Your task to perform on an android device: allow notifications from all sites in the chrome app Image 0: 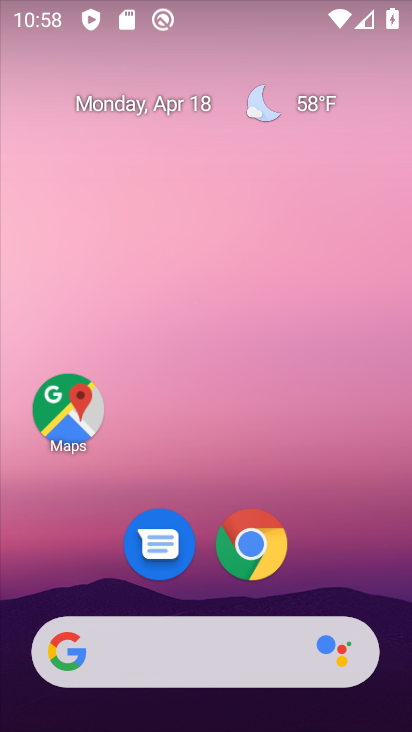
Step 0: click (253, 539)
Your task to perform on an android device: allow notifications from all sites in the chrome app Image 1: 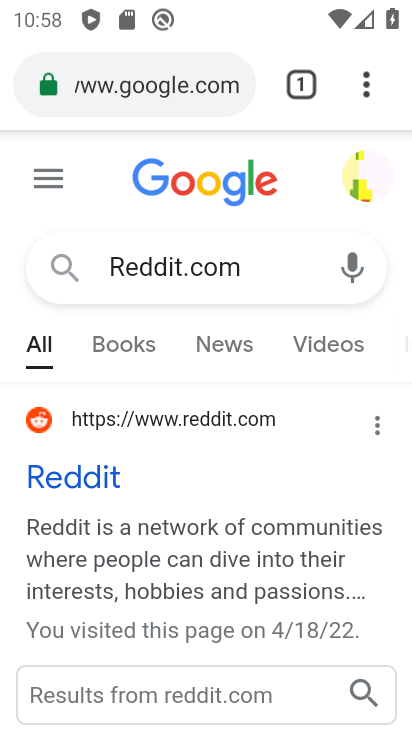
Step 1: click (373, 81)
Your task to perform on an android device: allow notifications from all sites in the chrome app Image 2: 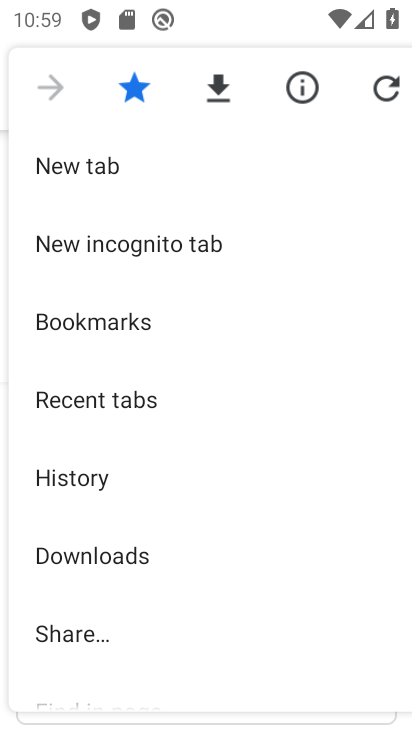
Step 2: drag from (141, 513) to (179, 401)
Your task to perform on an android device: allow notifications from all sites in the chrome app Image 3: 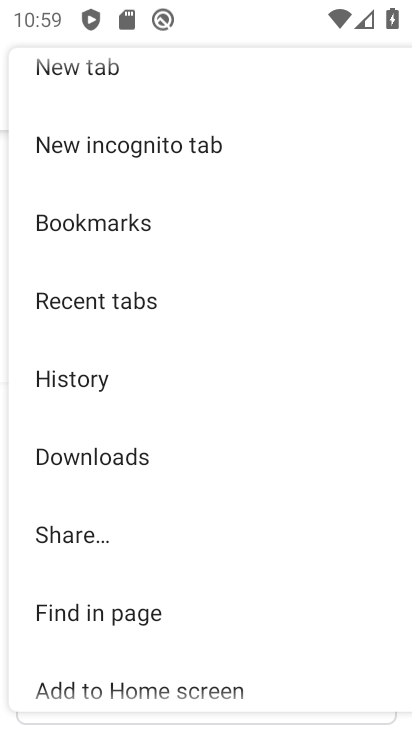
Step 3: drag from (155, 519) to (196, 359)
Your task to perform on an android device: allow notifications from all sites in the chrome app Image 4: 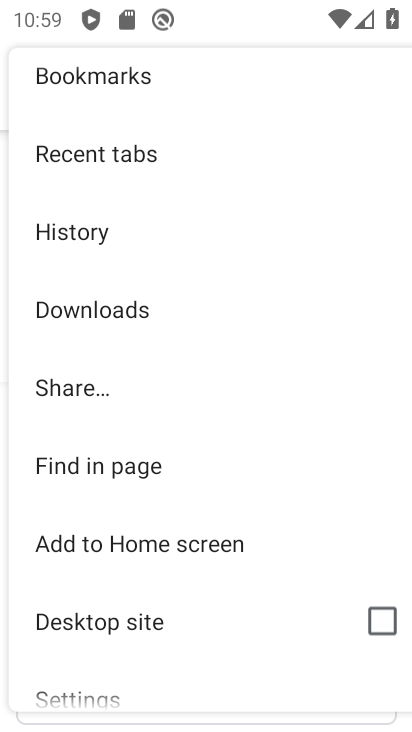
Step 4: drag from (175, 495) to (241, 339)
Your task to perform on an android device: allow notifications from all sites in the chrome app Image 5: 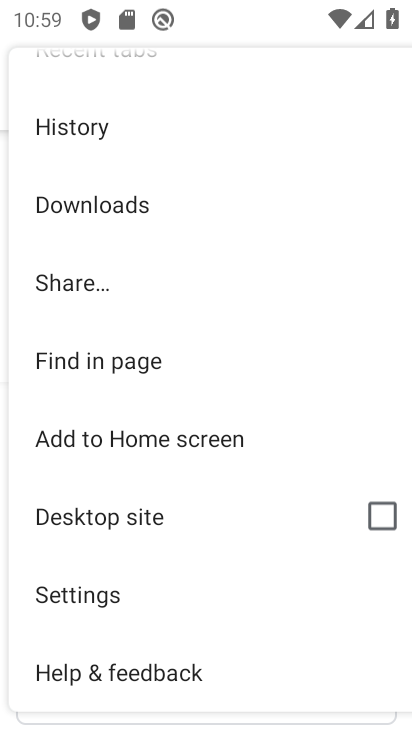
Step 5: click (106, 590)
Your task to perform on an android device: allow notifications from all sites in the chrome app Image 6: 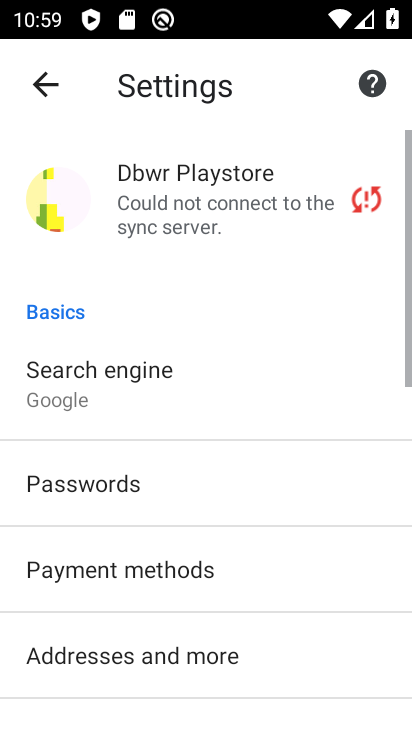
Step 6: drag from (160, 541) to (198, 409)
Your task to perform on an android device: allow notifications from all sites in the chrome app Image 7: 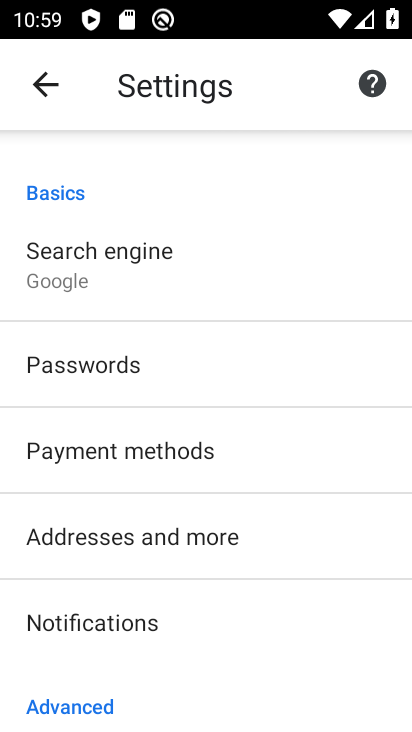
Step 7: drag from (175, 559) to (204, 412)
Your task to perform on an android device: allow notifications from all sites in the chrome app Image 8: 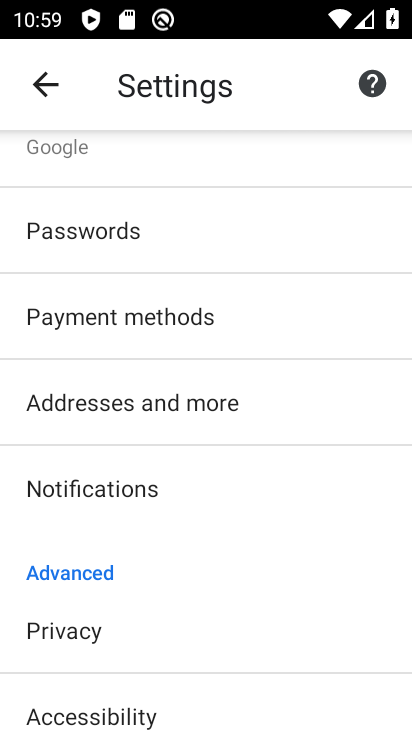
Step 8: drag from (170, 550) to (232, 407)
Your task to perform on an android device: allow notifications from all sites in the chrome app Image 9: 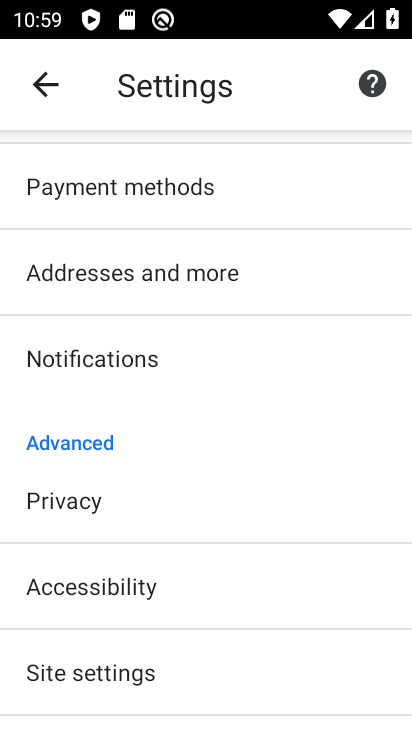
Step 9: click (153, 362)
Your task to perform on an android device: allow notifications from all sites in the chrome app Image 10: 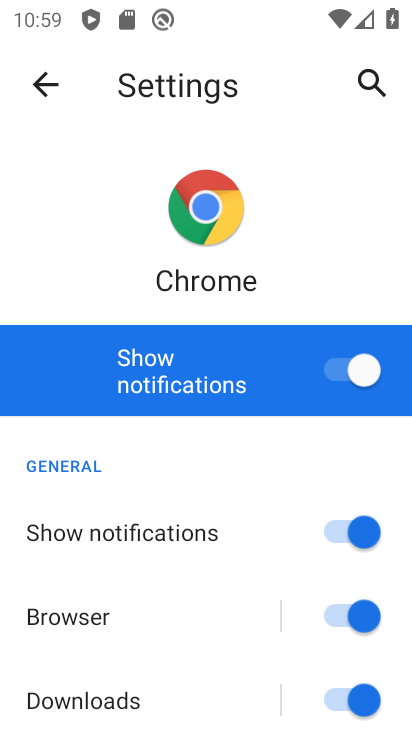
Step 10: task complete